Your task to perform on an android device: Go to network settings Image 0: 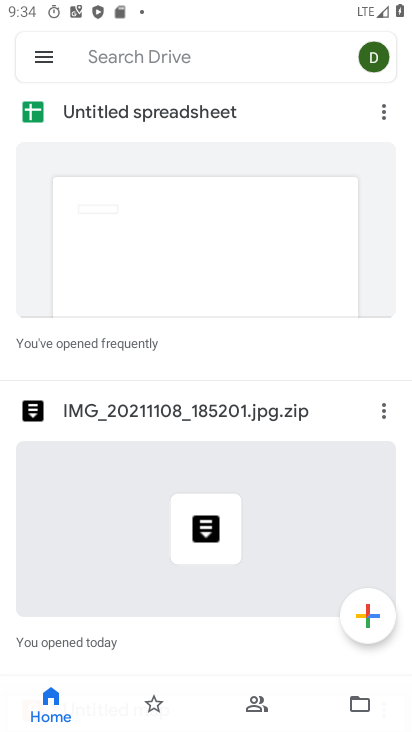
Step 0: press back button
Your task to perform on an android device: Go to network settings Image 1: 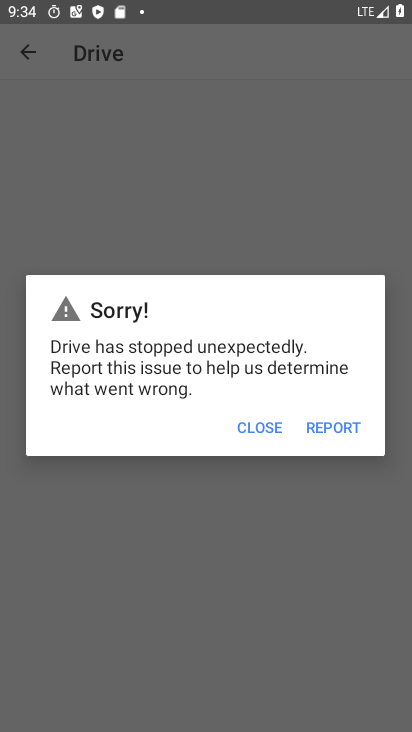
Step 1: press back button
Your task to perform on an android device: Go to network settings Image 2: 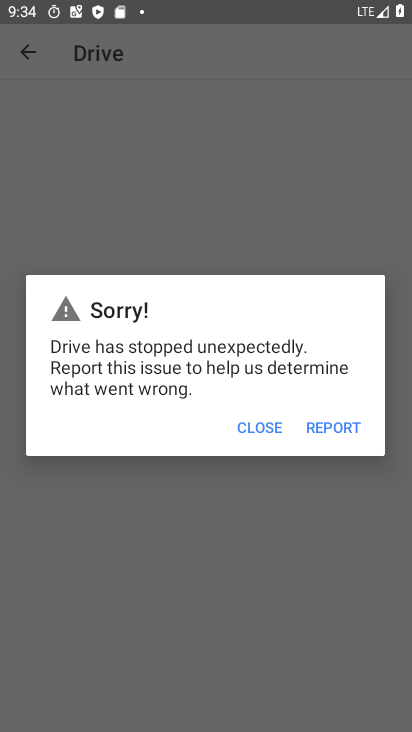
Step 2: press home button
Your task to perform on an android device: Go to network settings Image 3: 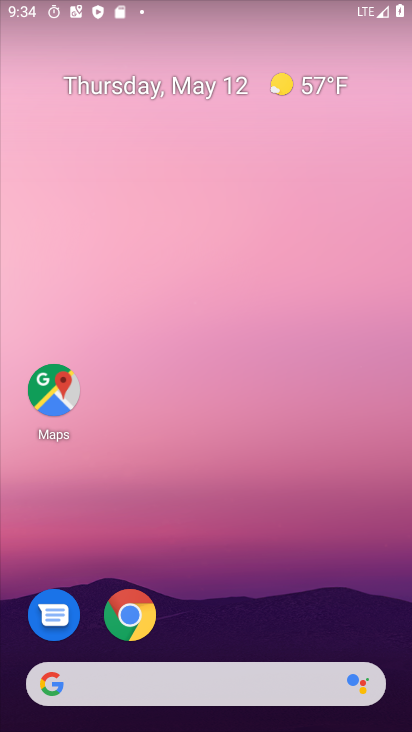
Step 3: drag from (223, 565) to (192, 18)
Your task to perform on an android device: Go to network settings Image 4: 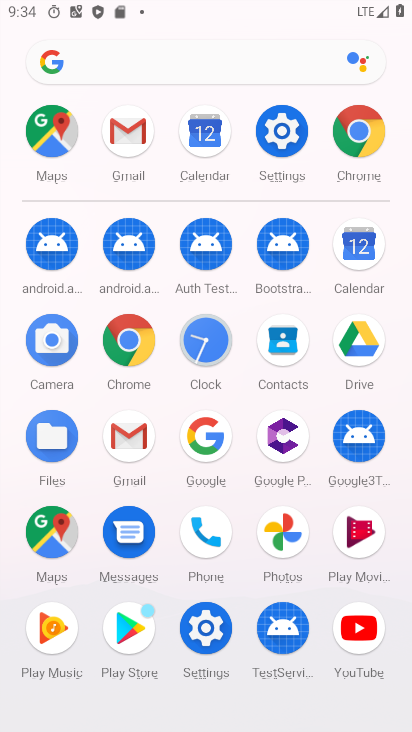
Step 4: click (207, 627)
Your task to perform on an android device: Go to network settings Image 5: 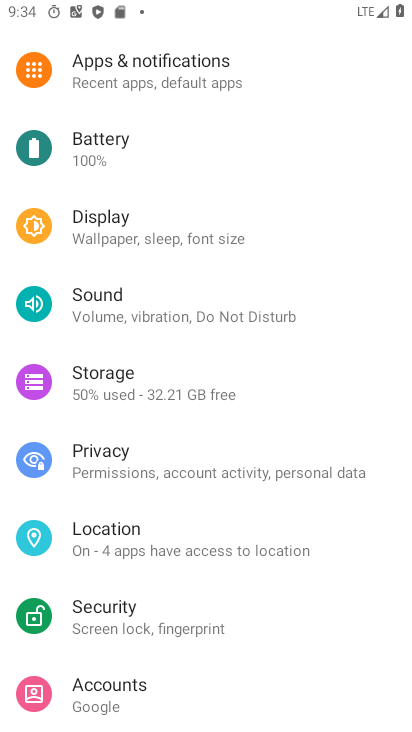
Step 5: drag from (223, 119) to (216, 486)
Your task to perform on an android device: Go to network settings Image 6: 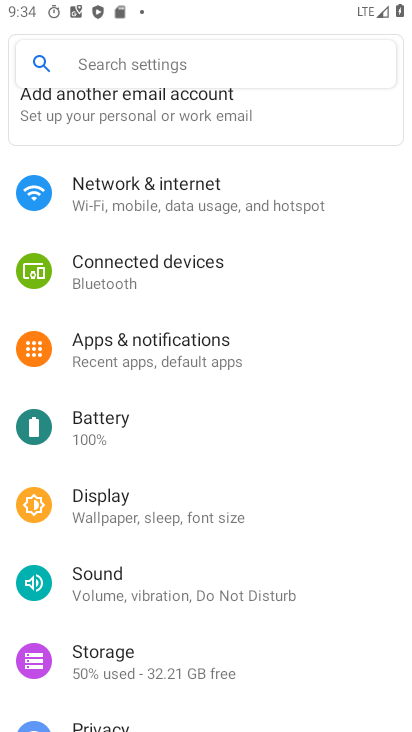
Step 6: click (215, 206)
Your task to perform on an android device: Go to network settings Image 7: 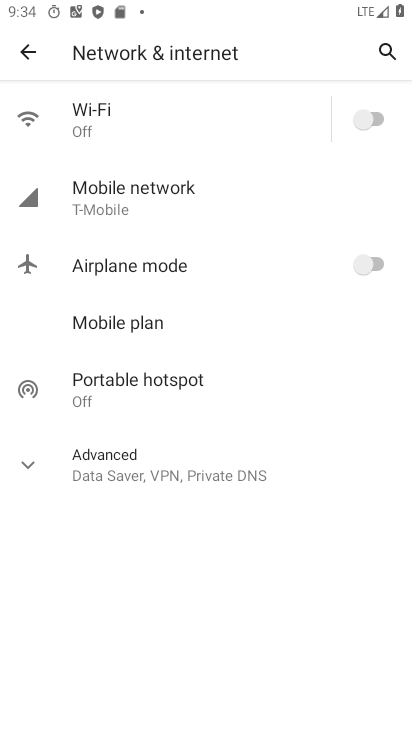
Step 7: click (20, 472)
Your task to perform on an android device: Go to network settings Image 8: 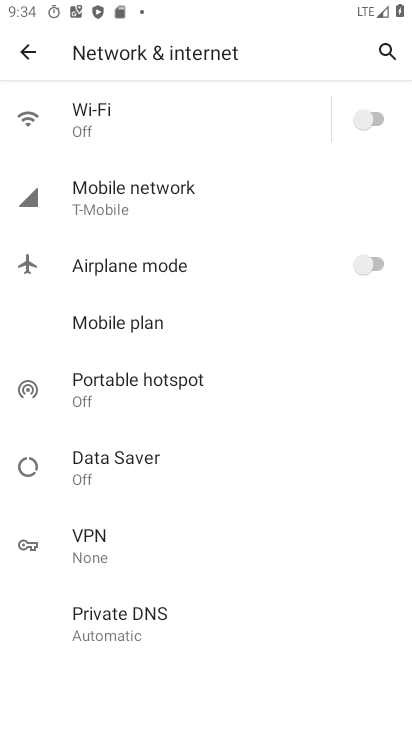
Step 8: task complete